Your task to perform on an android device: turn off priority inbox in the gmail app Image 0: 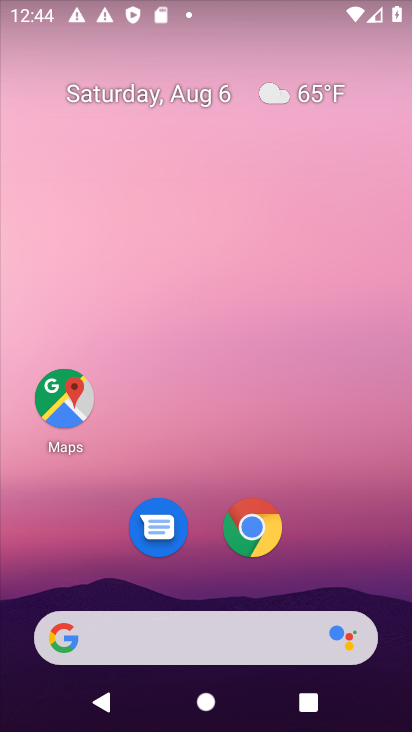
Step 0: drag from (212, 577) to (175, 242)
Your task to perform on an android device: turn off priority inbox in the gmail app Image 1: 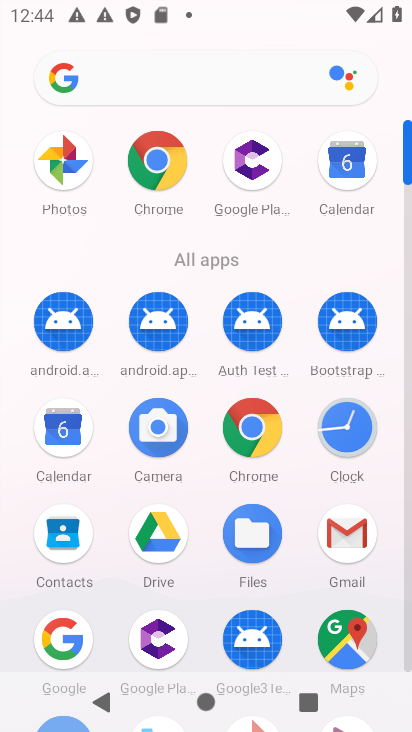
Step 1: click (332, 528)
Your task to perform on an android device: turn off priority inbox in the gmail app Image 2: 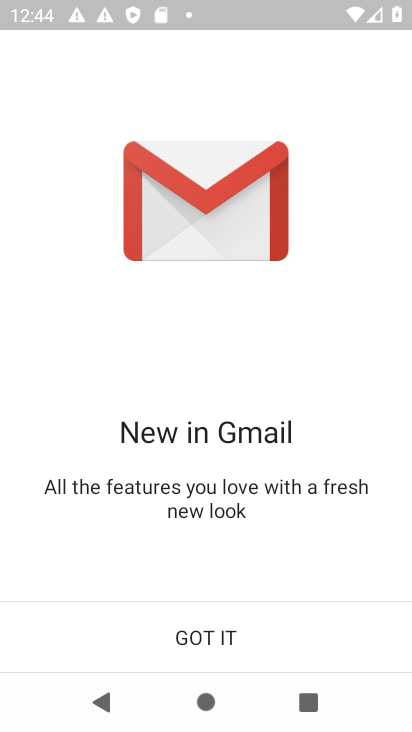
Step 2: click (208, 638)
Your task to perform on an android device: turn off priority inbox in the gmail app Image 3: 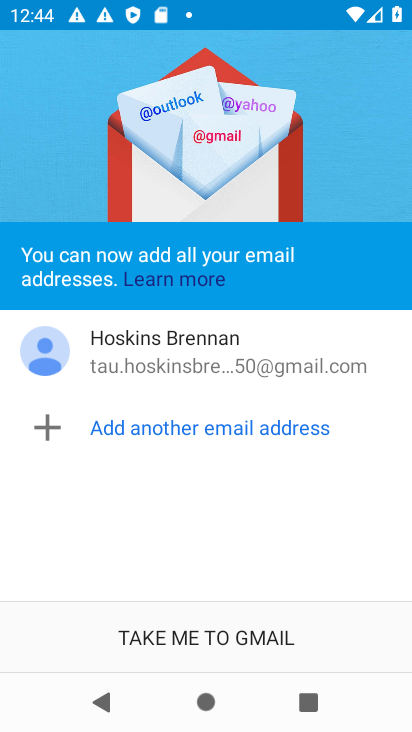
Step 3: click (200, 632)
Your task to perform on an android device: turn off priority inbox in the gmail app Image 4: 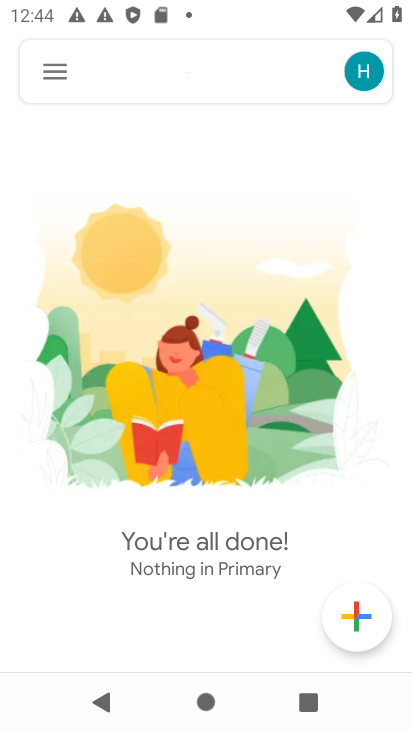
Step 4: click (61, 68)
Your task to perform on an android device: turn off priority inbox in the gmail app Image 5: 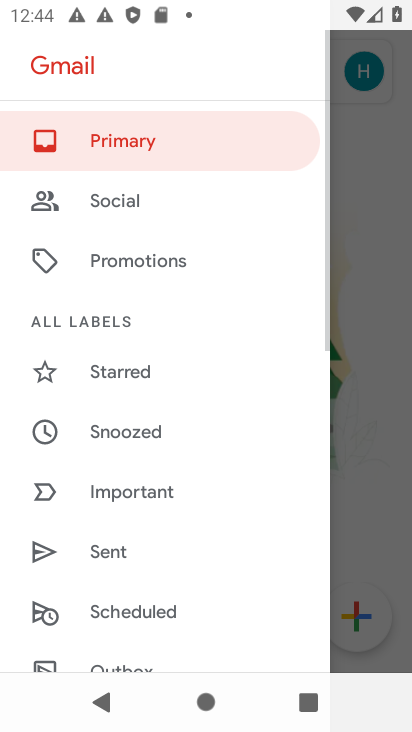
Step 5: drag from (131, 599) to (213, 169)
Your task to perform on an android device: turn off priority inbox in the gmail app Image 6: 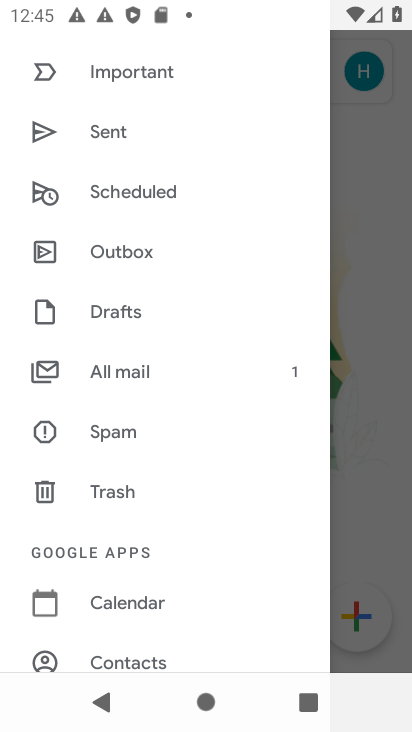
Step 6: drag from (130, 610) to (203, 115)
Your task to perform on an android device: turn off priority inbox in the gmail app Image 7: 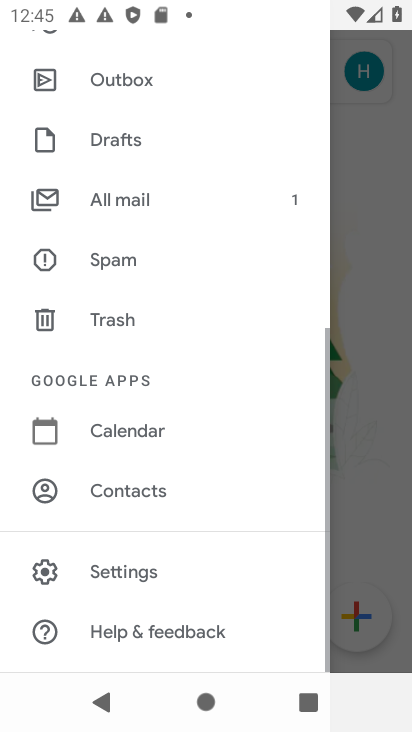
Step 7: click (105, 580)
Your task to perform on an android device: turn off priority inbox in the gmail app Image 8: 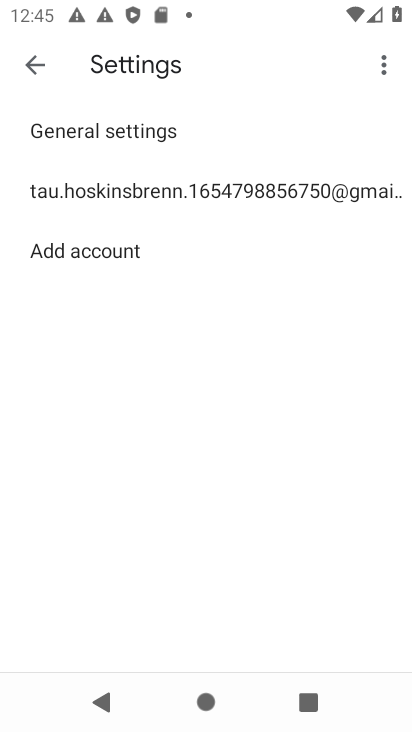
Step 8: click (85, 186)
Your task to perform on an android device: turn off priority inbox in the gmail app Image 9: 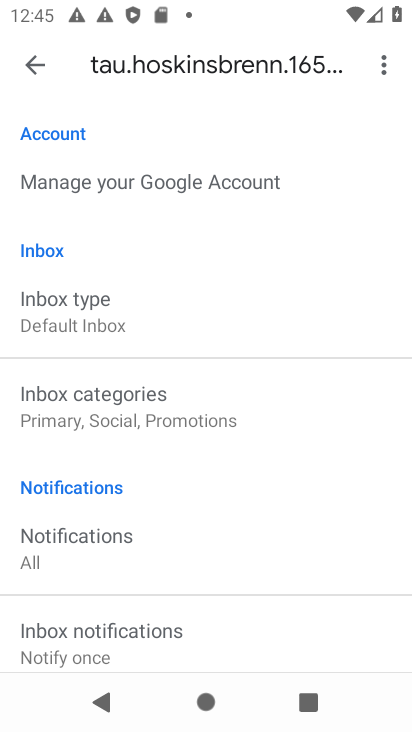
Step 9: click (62, 325)
Your task to perform on an android device: turn off priority inbox in the gmail app Image 10: 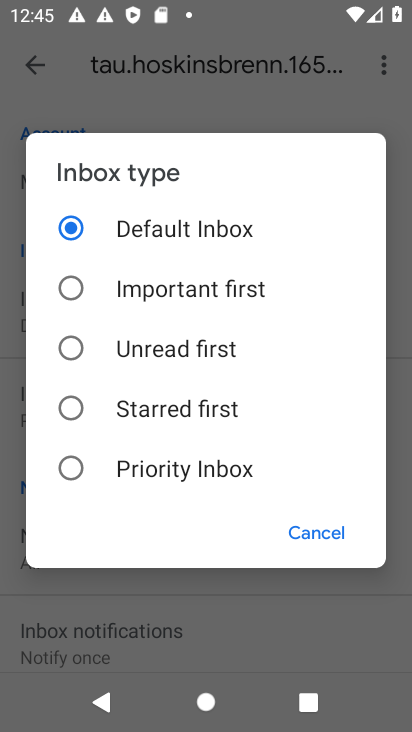
Step 10: task complete